Your task to perform on an android device: Open the calendar app, open the side menu, and click the "Day" option Image 0: 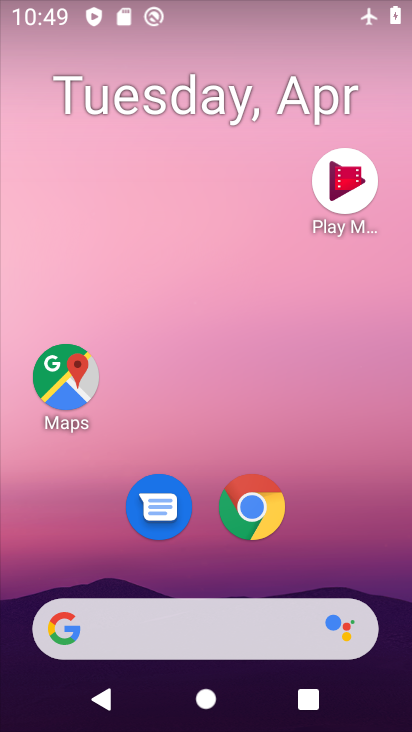
Step 0: drag from (203, 587) to (272, 103)
Your task to perform on an android device: Open the calendar app, open the side menu, and click the "Day" option Image 1: 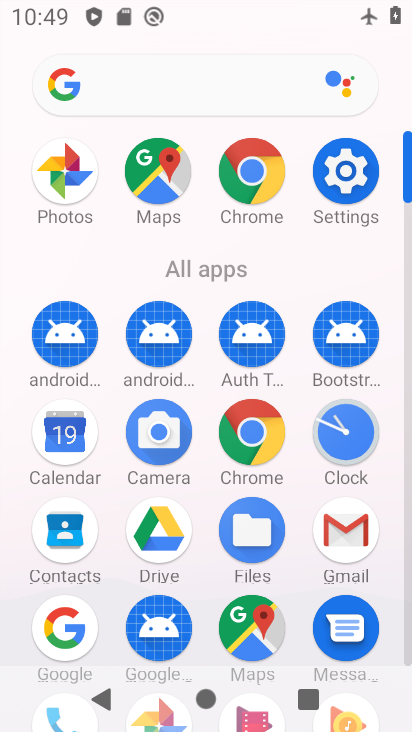
Step 1: click (55, 441)
Your task to perform on an android device: Open the calendar app, open the side menu, and click the "Day" option Image 2: 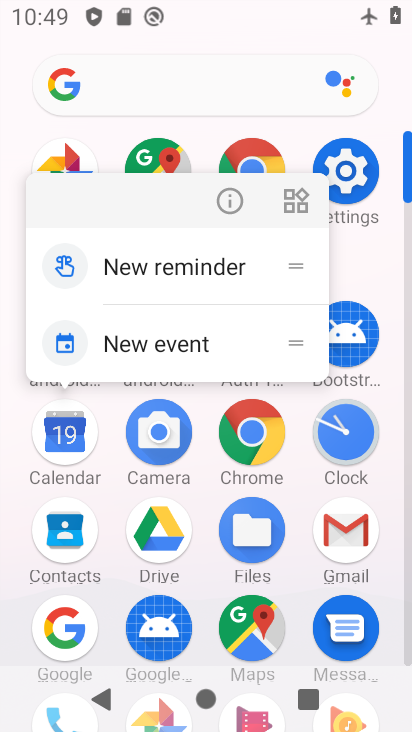
Step 2: click (68, 438)
Your task to perform on an android device: Open the calendar app, open the side menu, and click the "Day" option Image 3: 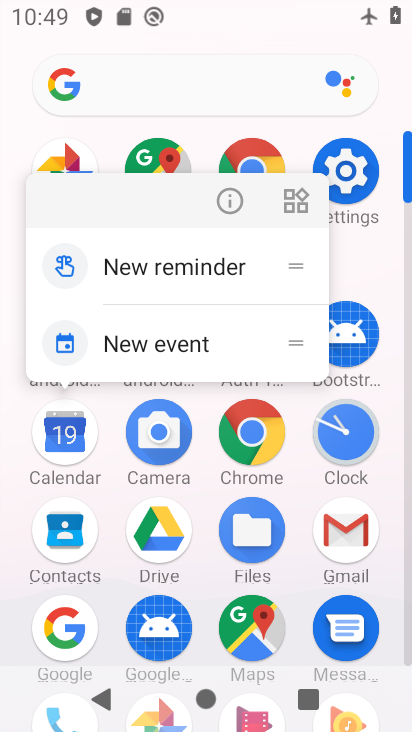
Step 3: click (236, 200)
Your task to perform on an android device: Open the calendar app, open the side menu, and click the "Day" option Image 4: 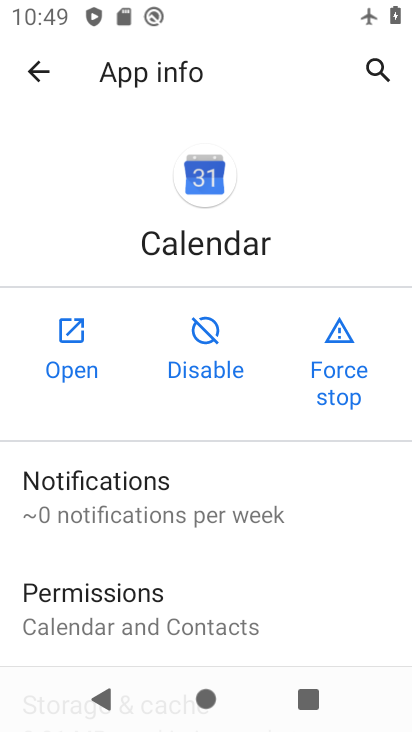
Step 4: click (89, 332)
Your task to perform on an android device: Open the calendar app, open the side menu, and click the "Day" option Image 5: 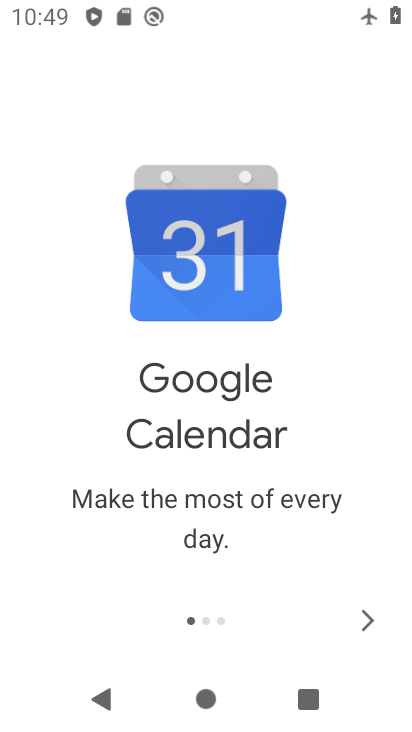
Step 5: click (371, 621)
Your task to perform on an android device: Open the calendar app, open the side menu, and click the "Day" option Image 6: 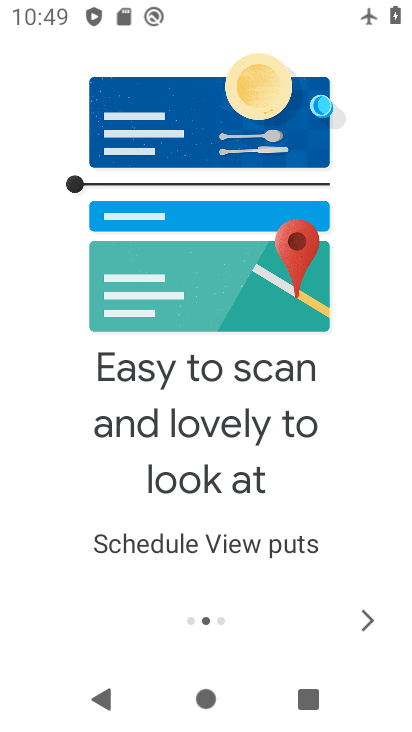
Step 6: click (371, 621)
Your task to perform on an android device: Open the calendar app, open the side menu, and click the "Day" option Image 7: 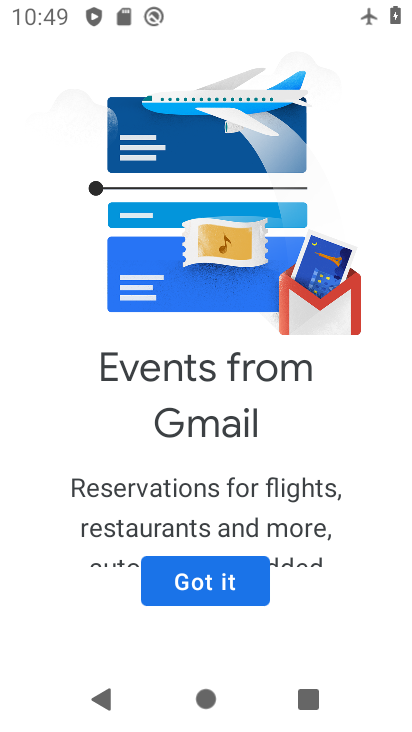
Step 7: click (248, 586)
Your task to perform on an android device: Open the calendar app, open the side menu, and click the "Day" option Image 8: 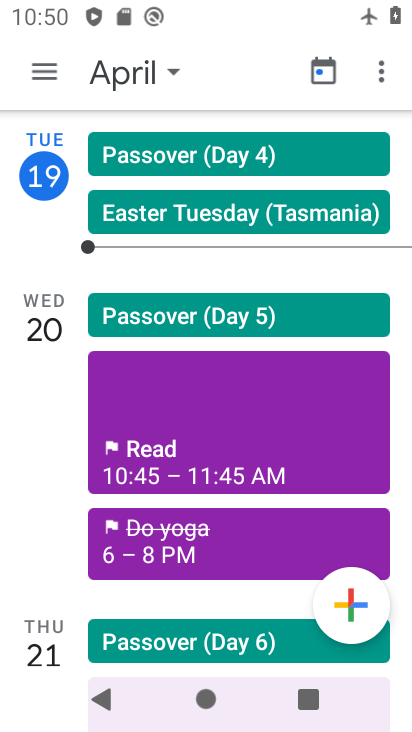
Step 8: click (38, 68)
Your task to perform on an android device: Open the calendar app, open the side menu, and click the "Day" option Image 9: 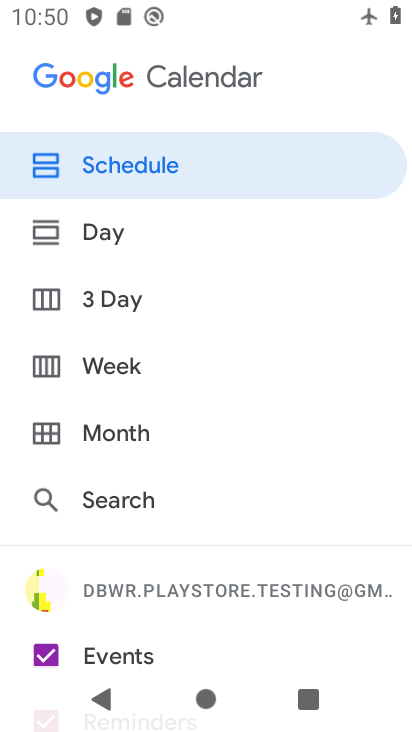
Step 9: click (103, 237)
Your task to perform on an android device: Open the calendar app, open the side menu, and click the "Day" option Image 10: 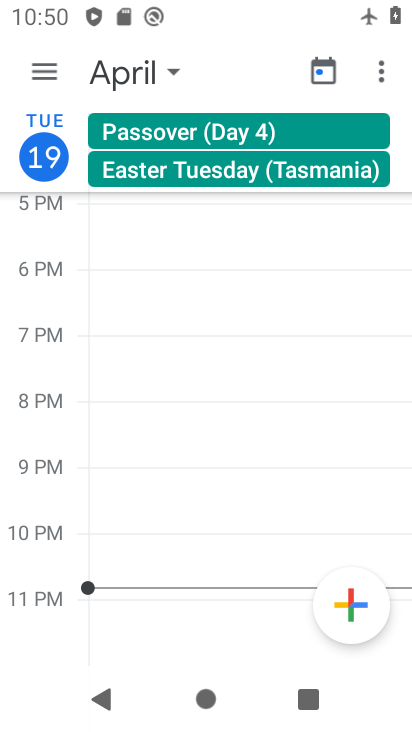
Step 10: task complete